Your task to perform on an android device: find photos in the google photos app Image 0: 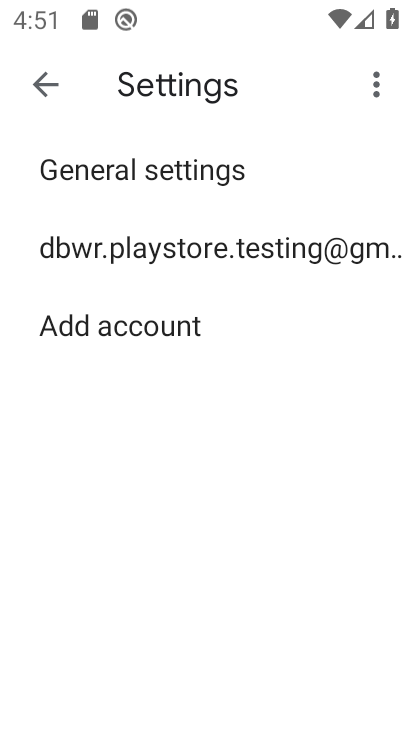
Step 0: press home button
Your task to perform on an android device: find photos in the google photos app Image 1: 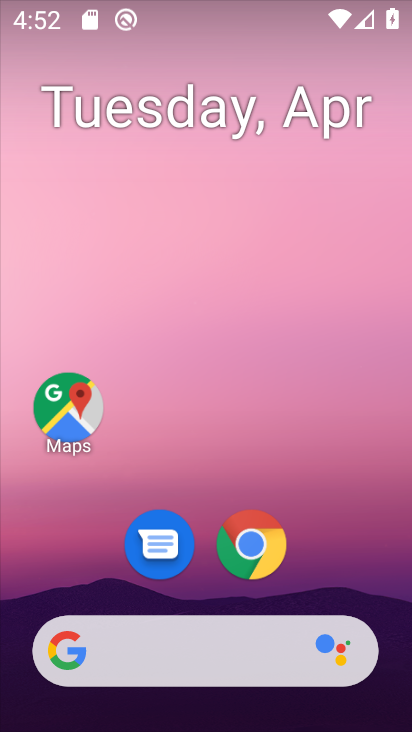
Step 1: drag from (218, 688) to (243, 77)
Your task to perform on an android device: find photos in the google photos app Image 2: 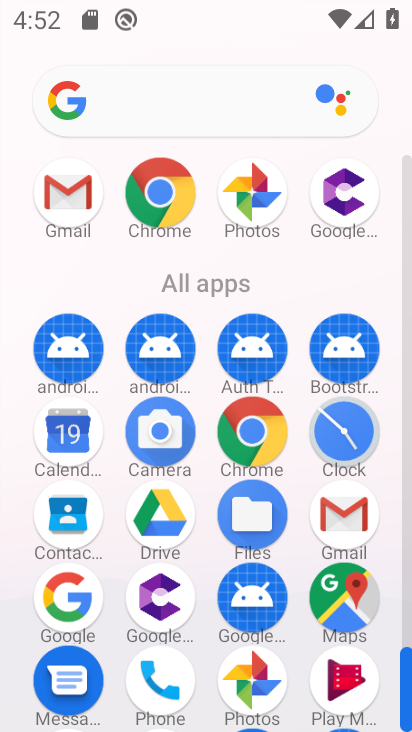
Step 2: click (265, 668)
Your task to perform on an android device: find photos in the google photos app Image 3: 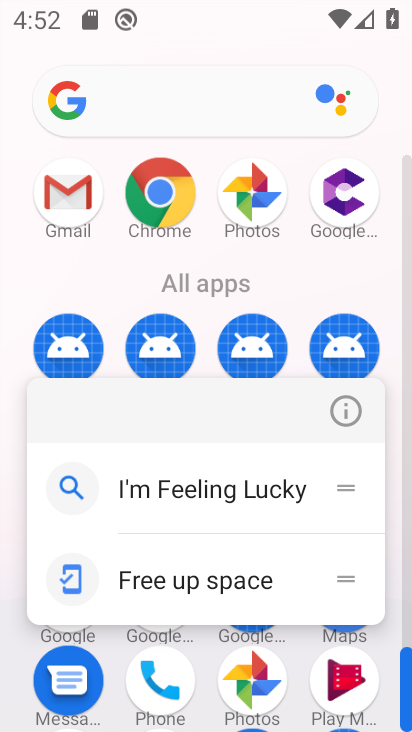
Step 3: click (277, 196)
Your task to perform on an android device: find photos in the google photos app Image 4: 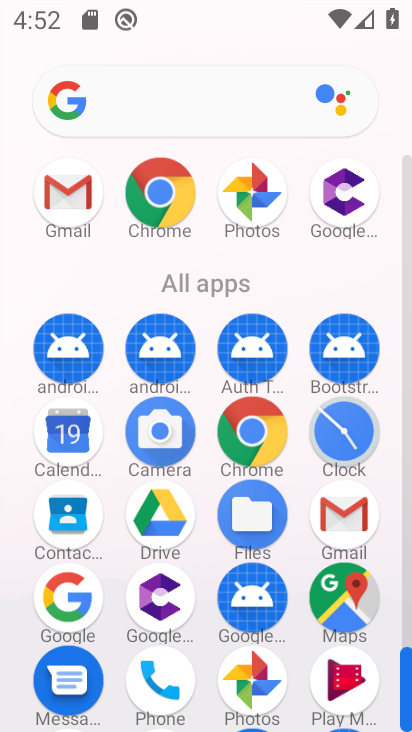
Step 4: click (249, 199)
Your task to perform on an android device: find photos in the google photos app Image 5: 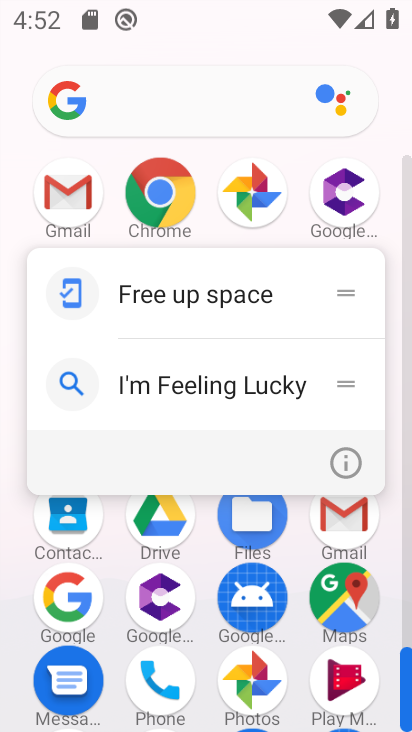
Step 5: click (249, 199)
Your task to perform on an android device: find photos in the google photos app Image 6: 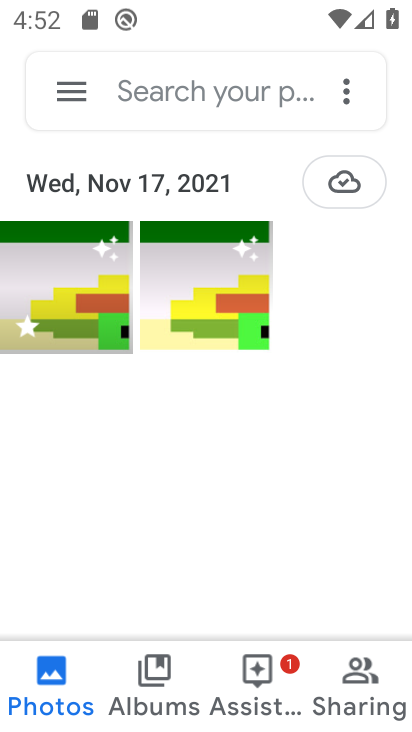
Step 6: task complete